Your task to perform on an android device: delete a single message in the gmail app Image 0: 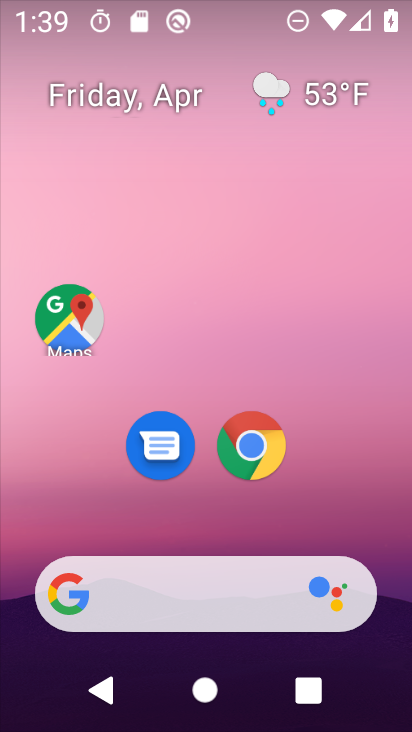
Step 0: drag from (379, 523) to (363, 217)
Your task to perform on an android device: delete a single message in the gmail app Image 1: 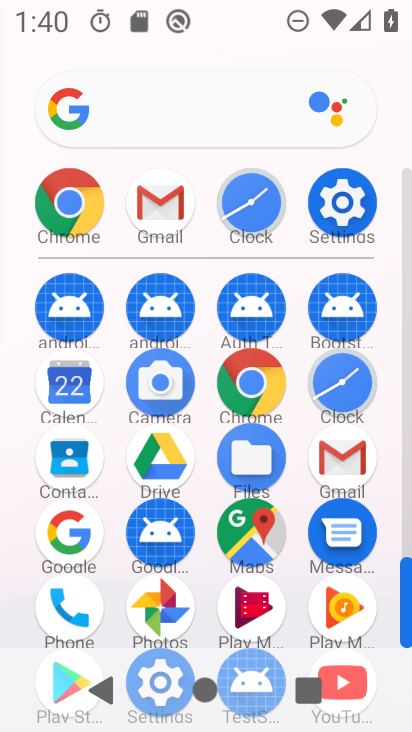
Step 1: click (353, 447)
Your task to perform on an android device: delete a single message in the gmail app Image 2: 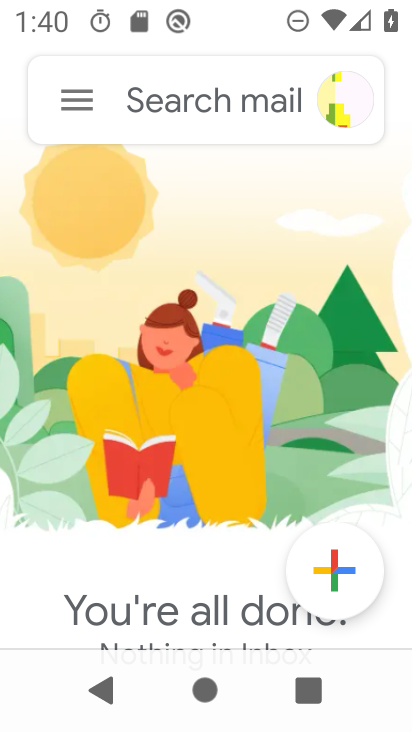
Step 2: drag from (160, 486) to (174, 306)
Your task to perform on an android device: delete a single message in the gmail app Image 3: 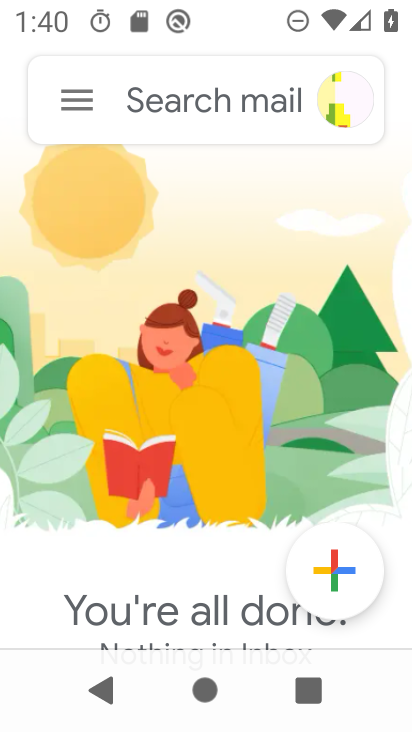
Step 3: click (77, 91)
Your task to perform on an android device: delete a single message in the gmail app Image 4: 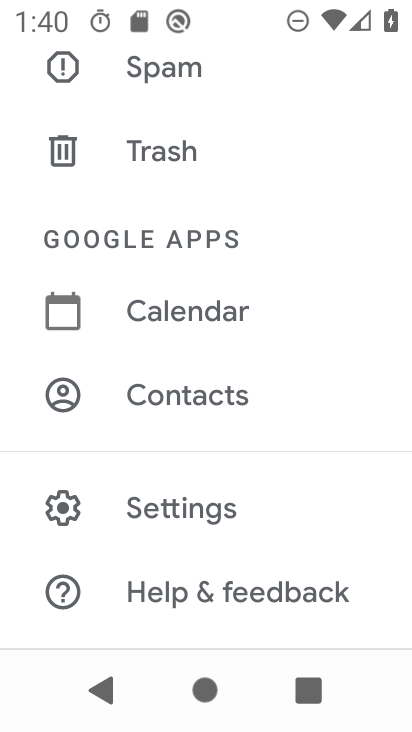
Step 4: drag from (324, 309) to (310, 440)
Your task to perform on an android device: delete a single message in the gmail app Image 5: 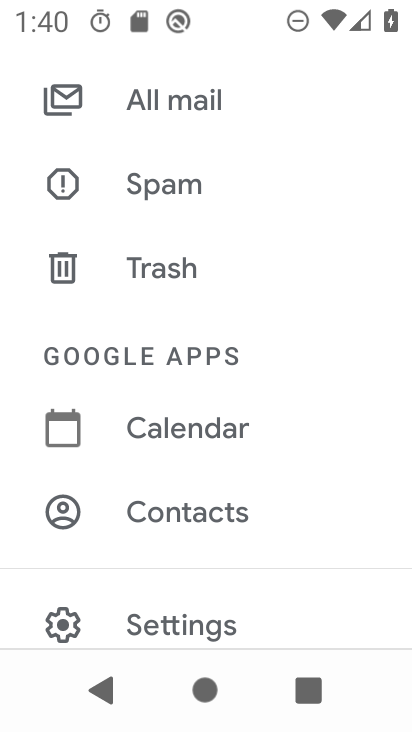
Step 5: drag from (323, 223) to (319, 404)
Your task to perform on an android device: delete a single message in the gmail app Image 6: 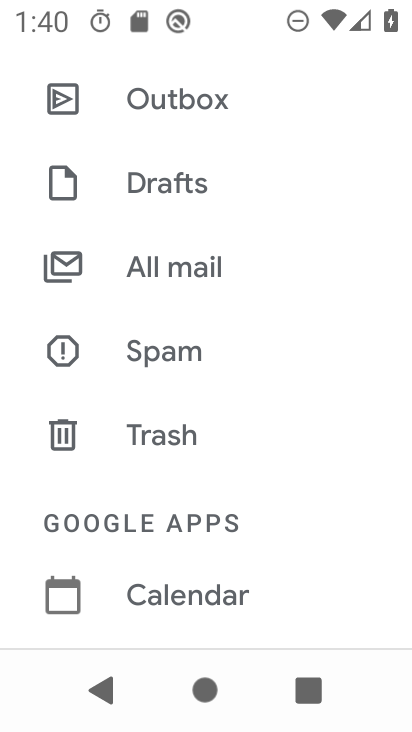
Step 6: drag from (323, 211) to (321, 387)
Your task to perform on an android device: delete a single message in the gmail app Image 7: 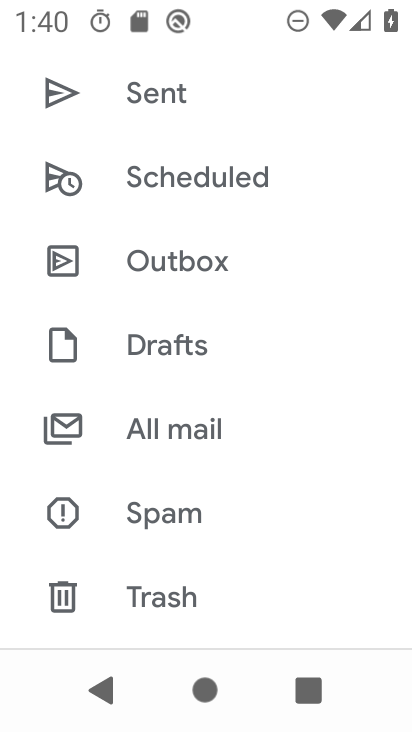
Step 7: drag from (335, 169) to (329, 385)
Your task to perform on an android device: delete a single message in the gmail app Image 8: 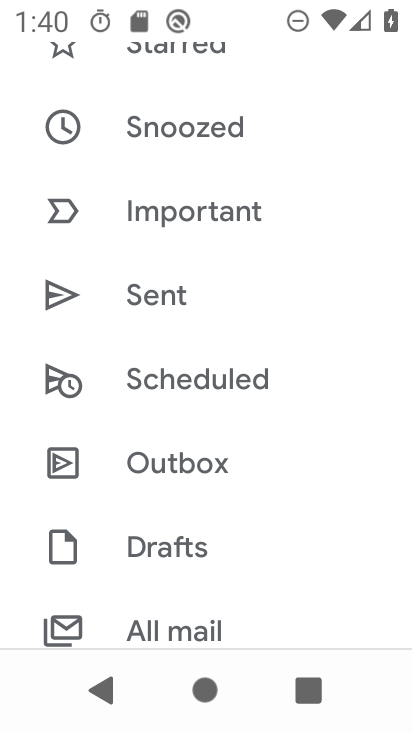
Step 8: drag from (319, 143) to (321, 348)
Your task to perform on an android device: delete a single message in the gmail app Image 9: 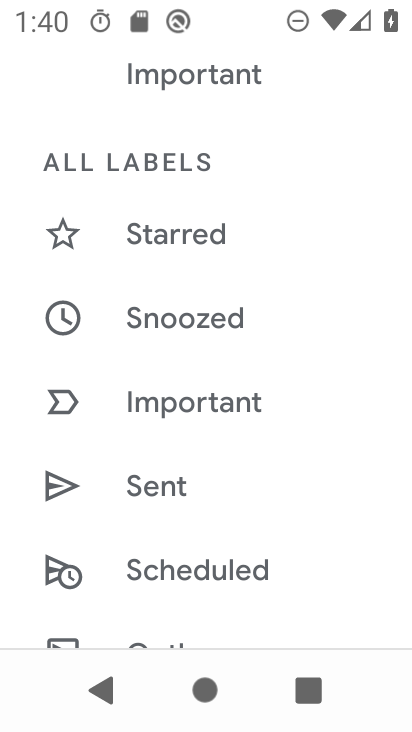
Step 9: drag from (337, 132) to (326, 337)
Your task to perform on an android device: delete a single message in the gmail app Image 10: 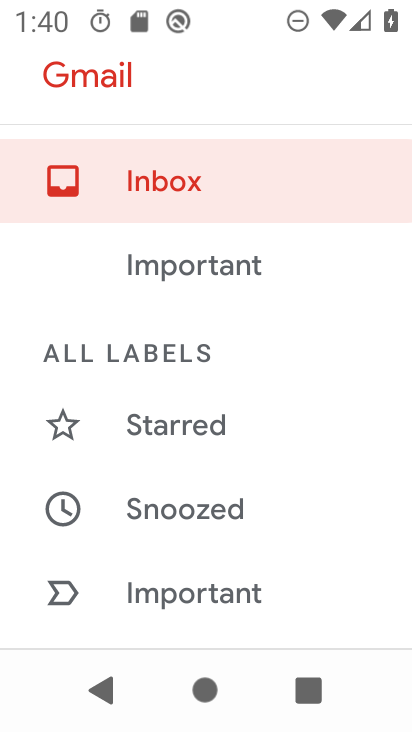
Step 10: click (247, 172)
Your task to perform on an android device: delete a single message in the gmail app Image 11: 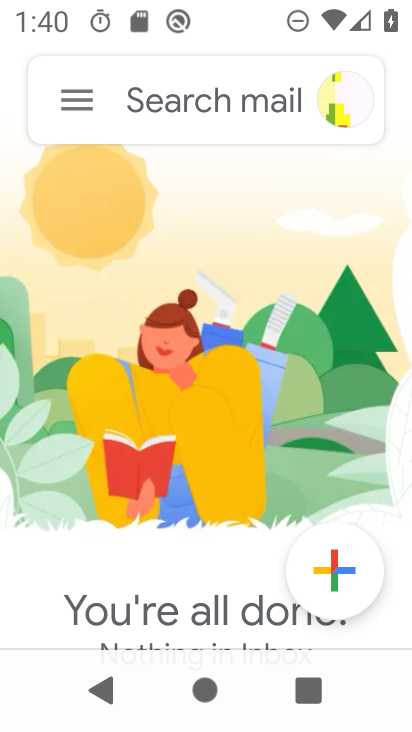
Step 11: task complete